Your task to perform on an android device: Go to settings Image 0: 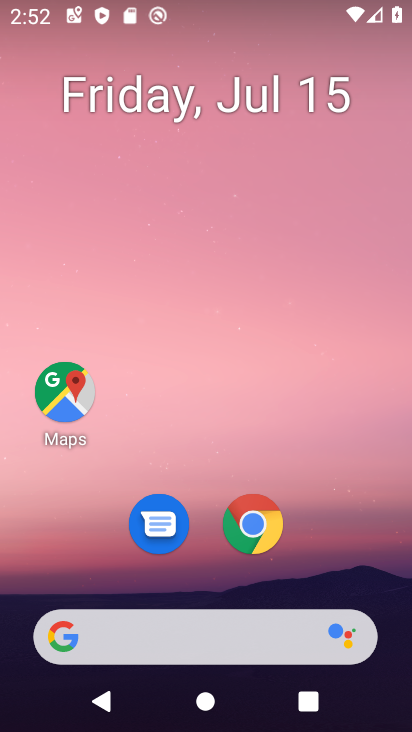
Step 0: press home button
Your task to perform on an android device: Go to settings Image 1: 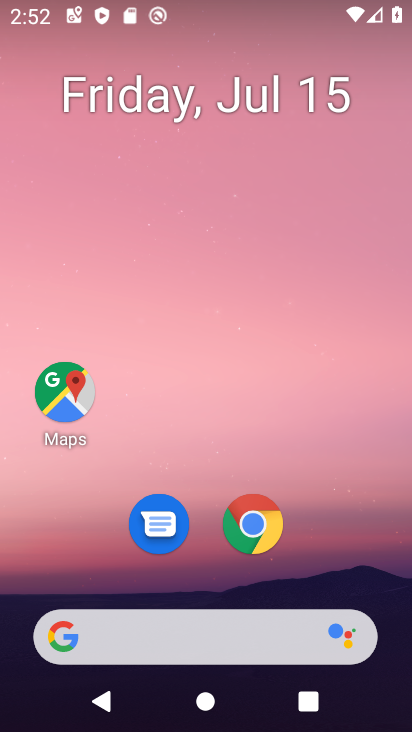
Step 1: drag from (195, 630) to (317, 39)
Your task to perform on an android device: Go to settings Image 2: 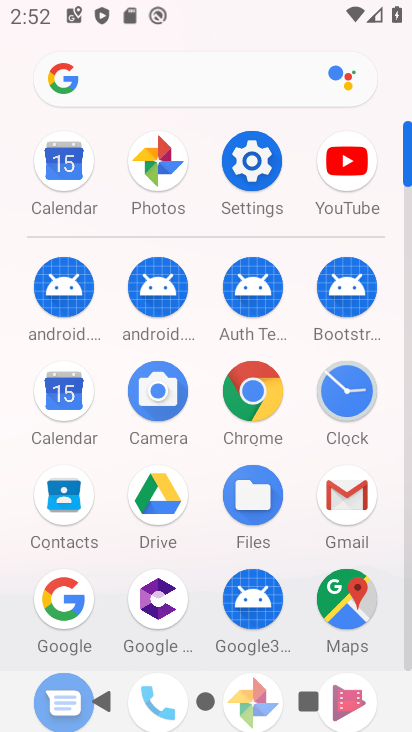
Step 2: click (244, 176)
Your task to perform on an android device: Go to settings Image 3: 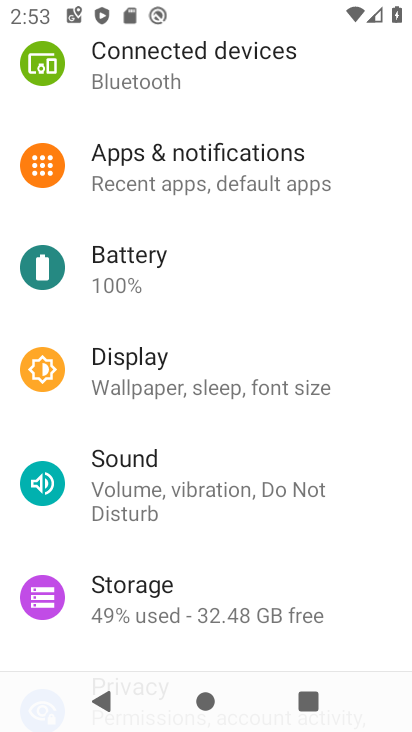
Step 3: task complete